Your task to perform on an android device: Go to display settings Image 0: 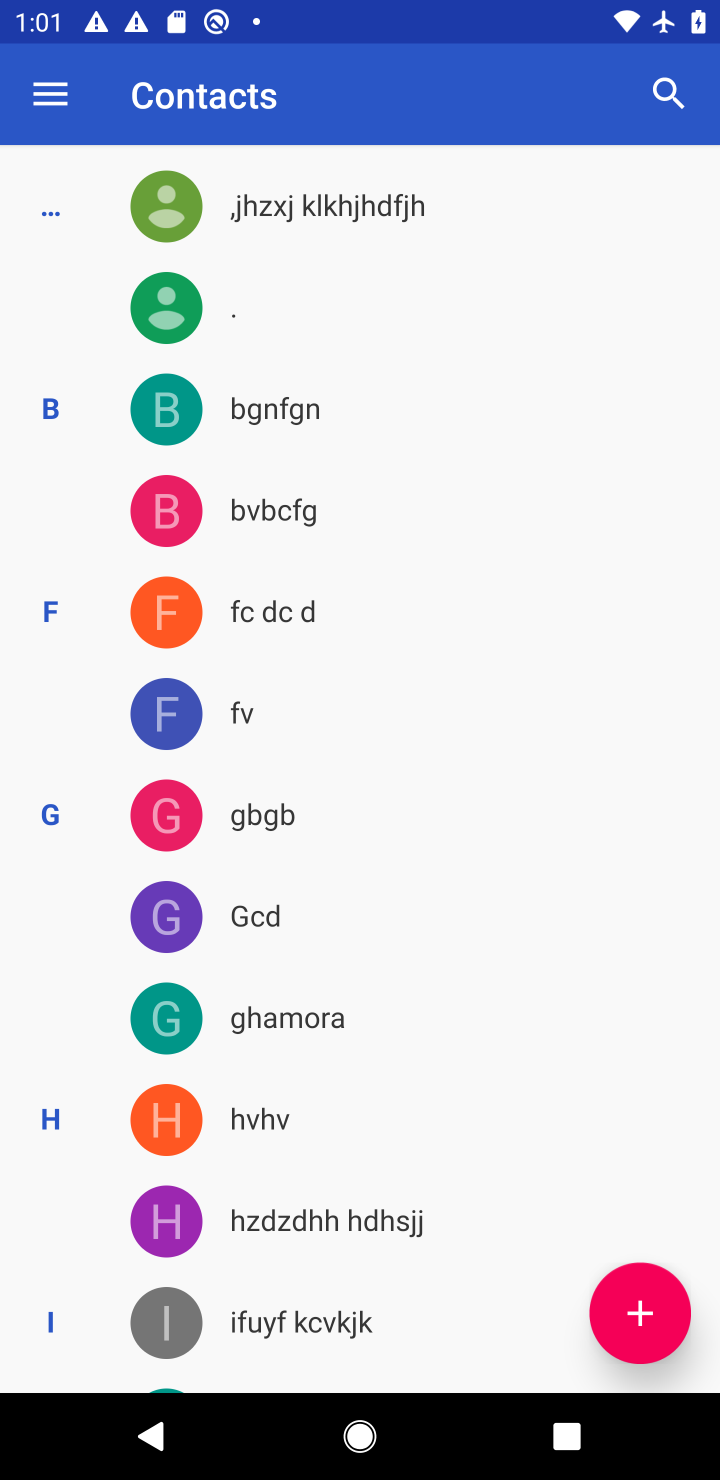
Step 0: press home button
Your task to perform on an android device: Go to display settings Image 1: 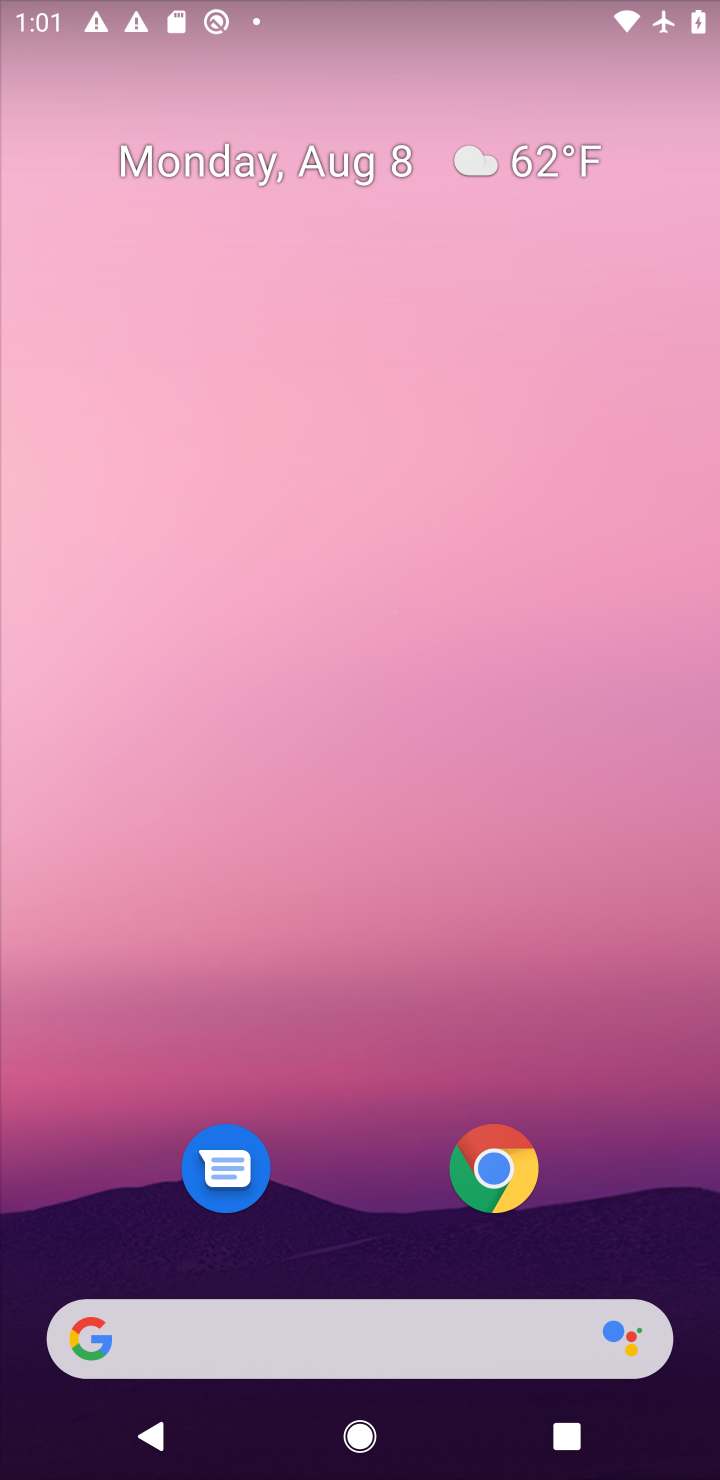
Step 1: drag from (373, 1279) to (322, 175)
Your task to perform on an android device: Go to display settings Image 2: 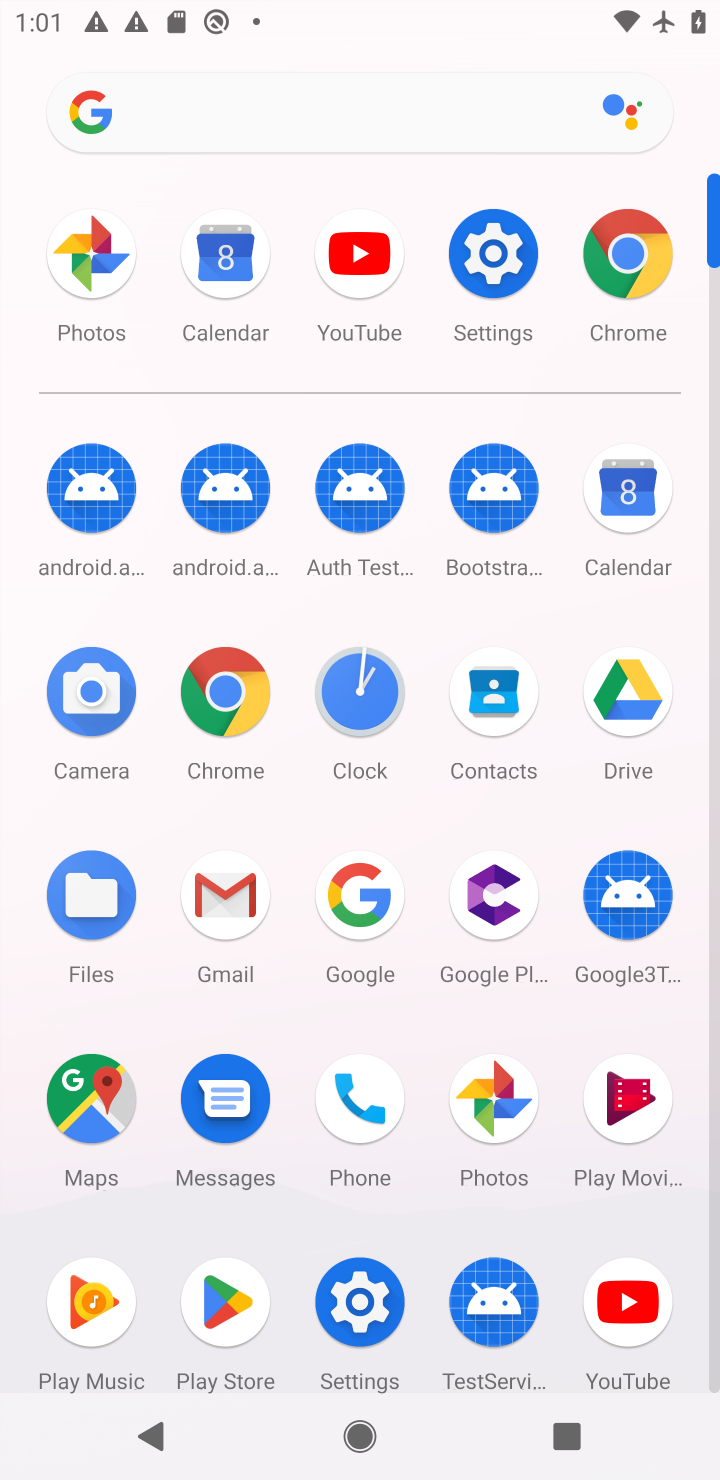
Step 2: click (395, 1301)
Your task to perform on an android device: Go to display settings Image 3: 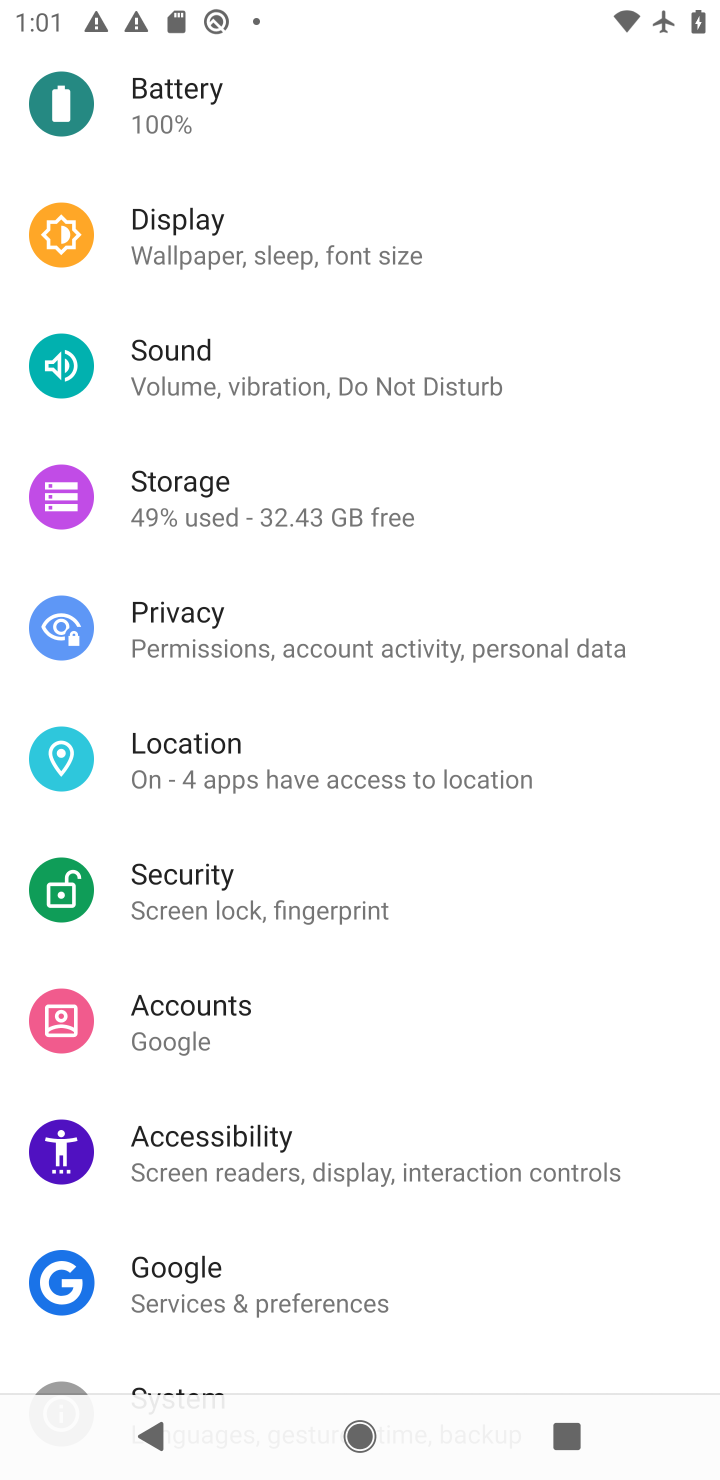
Step 3: click (196, 269)
Your task to perform on an android device: Go to display settings Image 4: 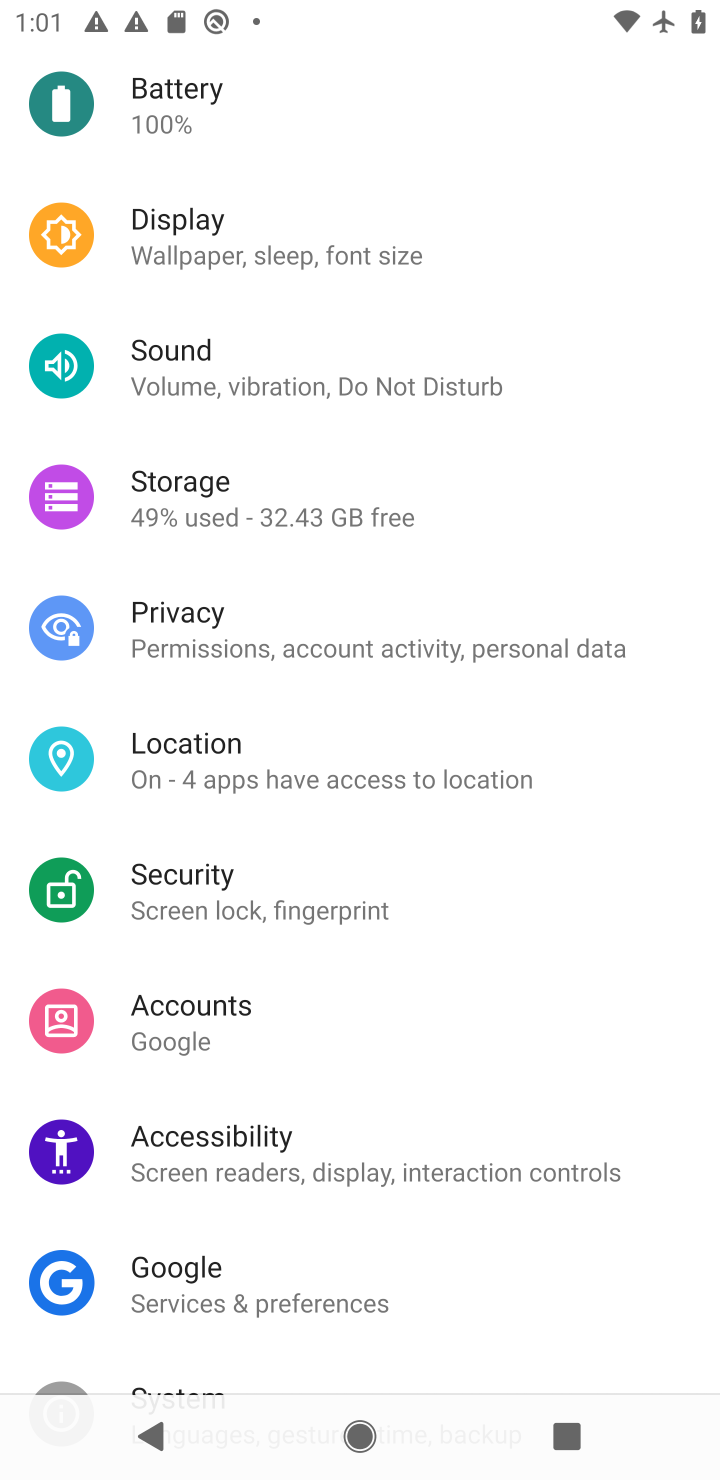
Step 4: task complete